Your task to perform on an android device: change timer sound Image 0: 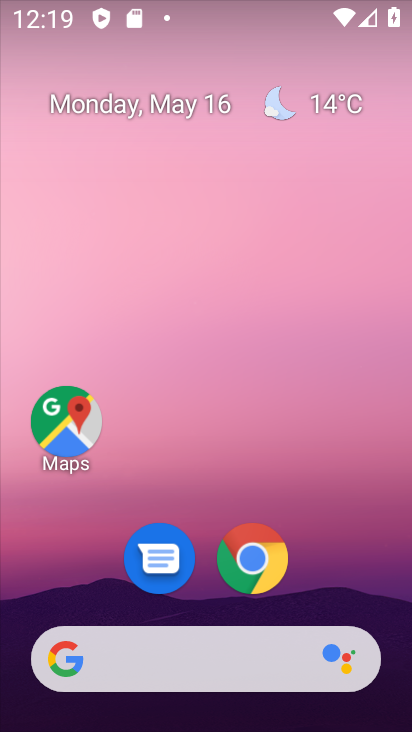
Step 0: drag from (371, 569) to (355, 153)
Your task to perform on an android device: change timer sound Image 1: 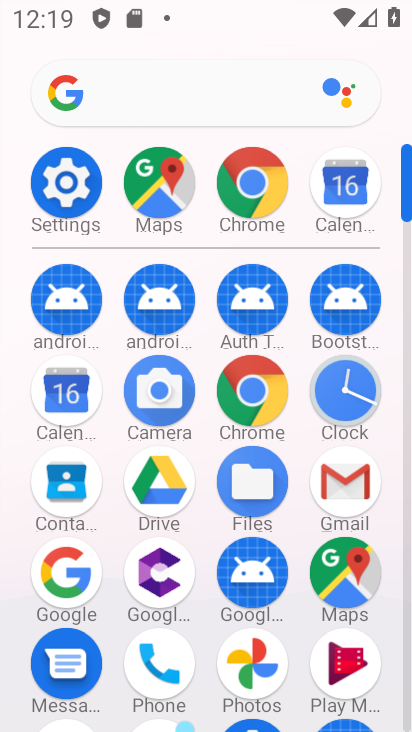
Step 1: click (345, 383)
Your task to perform on an android device: change timer sound Image 2: 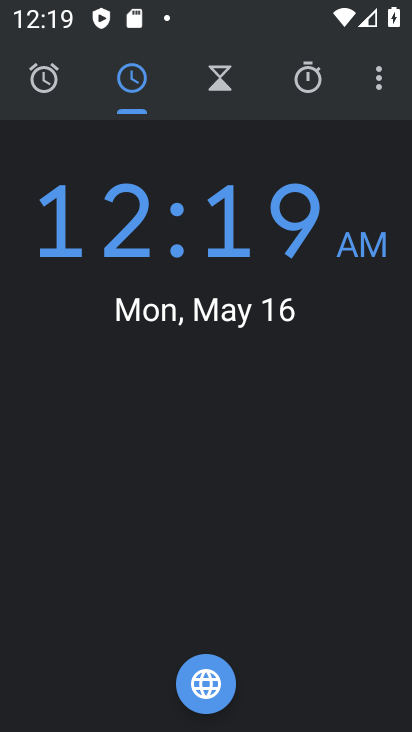
Step 2: click (383, 87)
Your task to perform on an android device: change timer sound Image 3: 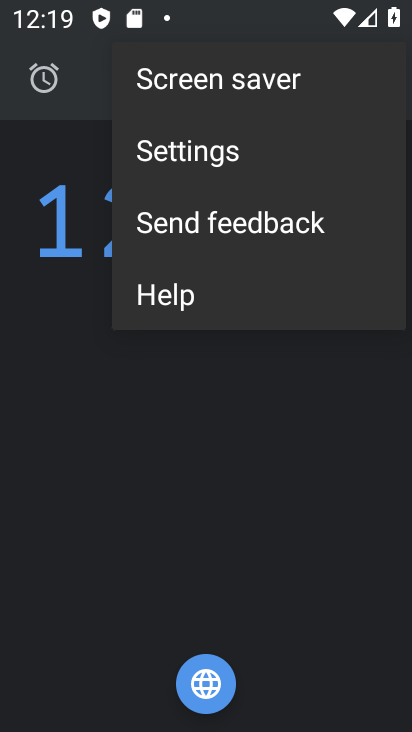
Step 3: click (206, 160)
Your task to perform on an android device: change timer sound Image 4: 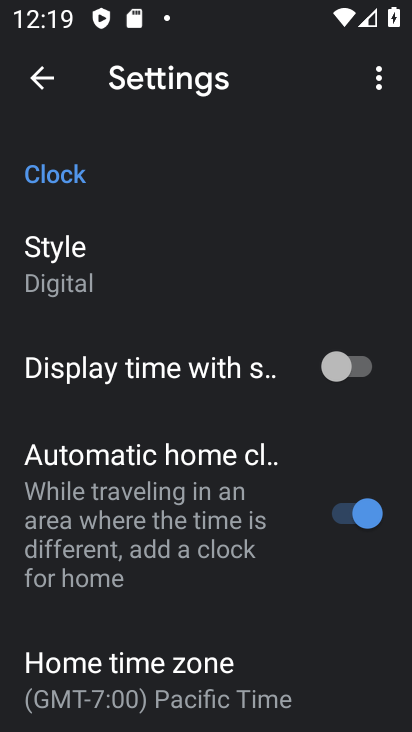
Step 4: drag from (293, 637) to (300, 420)
Your task to perform on an android device: change timer sound Image 5: 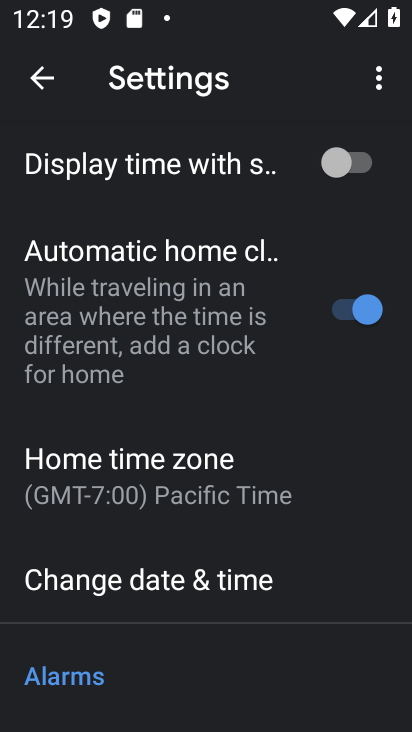
Step 5: drag from (278, 677) to (294, 470)
Your task to perform on an android device: change timer sound Image 6: 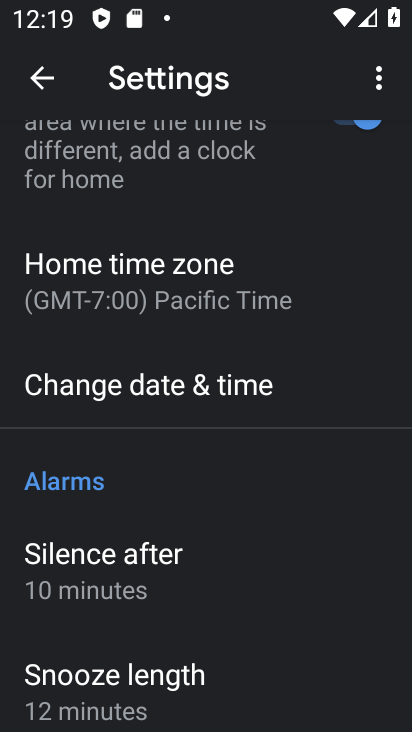
Step 6: drag from (282, 682) to (281, 480)
Your task to perform on an android device: change timer sound Image 7: 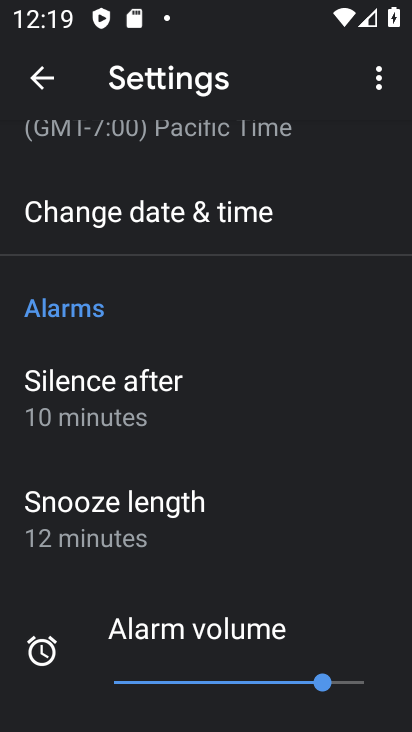
Step 7: drag from (304, 700) to (302, 415)
Your task to perform on an android device: change timer sound Image 8: 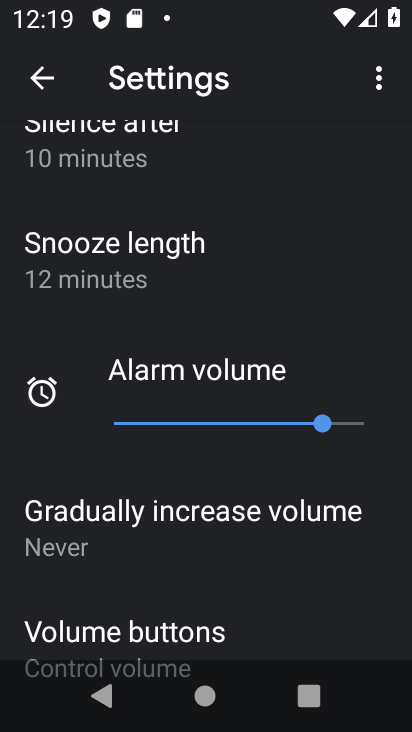
Step 8: drag from (341, 614) to (340, 433)
Your task to perform on an android device: change timer sound Image 9: 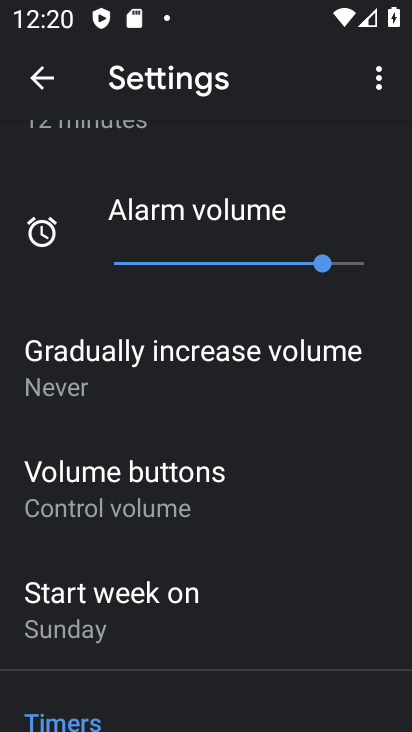
Step 9: drag from (336, 601) to (328, 403)
Your task to perform on an android device: change timer sound Image 10: 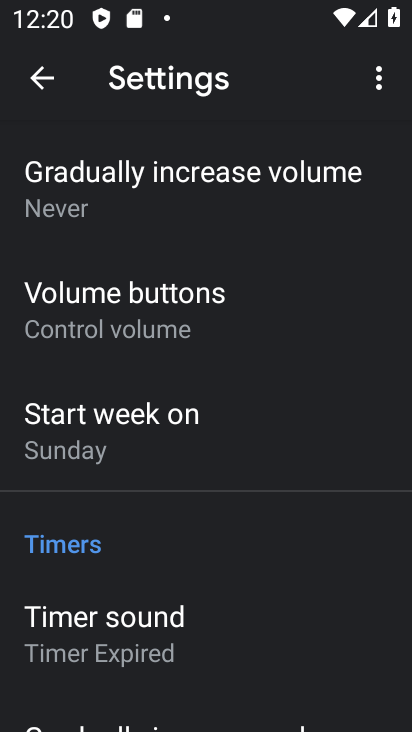
Step 10: click (153, 625)
Your task to perform on an android device: change timer sound Image 11: 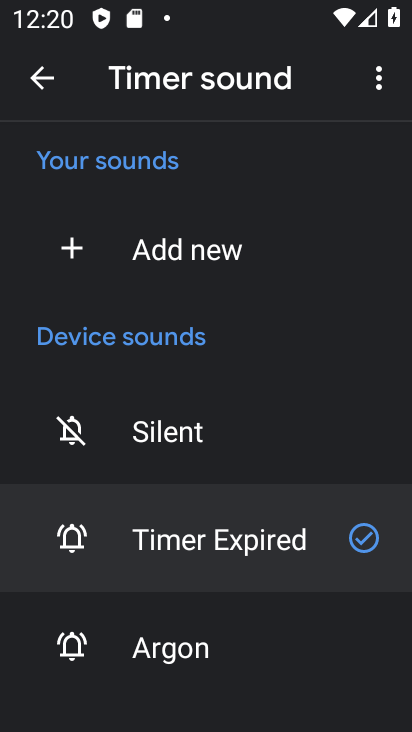
Step 11: click (182, 653)
Your task to perform on an android device: change timer sound Image 12: 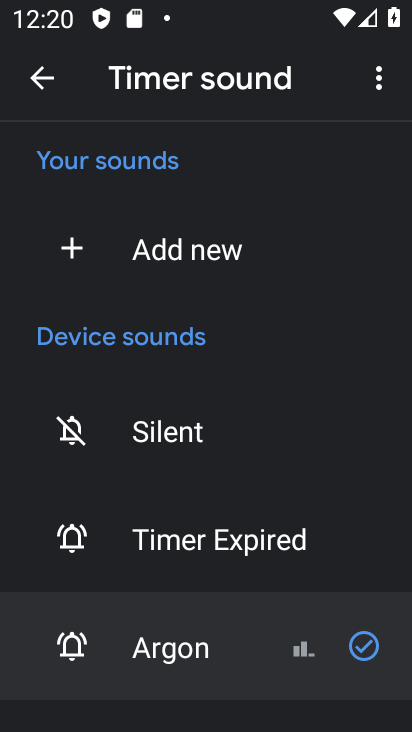
Step 12: task complete